Your task to perform on an android device: Search for the new Nike Air Max 270 on Nike.com Image 0: 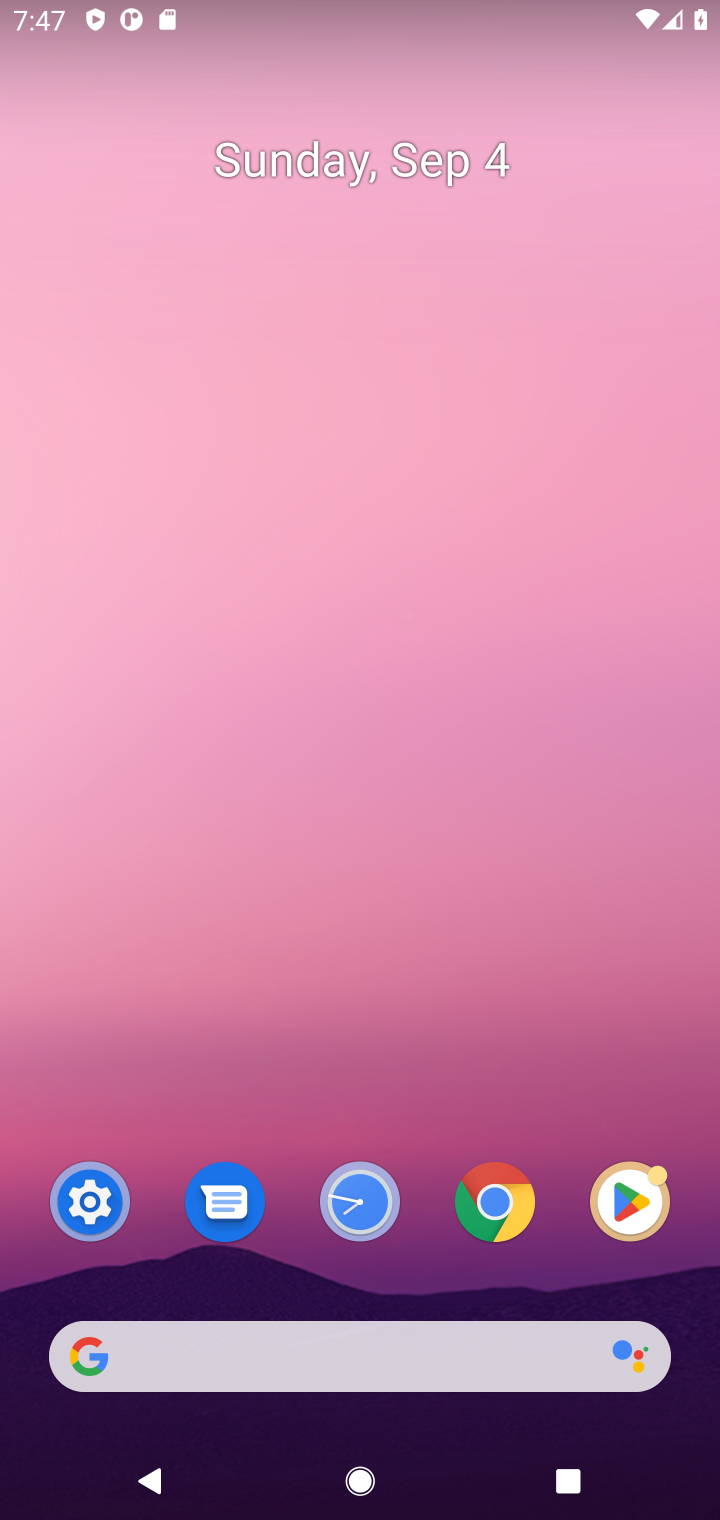
Step 0: click (494, 1218)
Your task to perform on an android device: Search for the new Nike Air Max 270 on Nike.com Image 1: 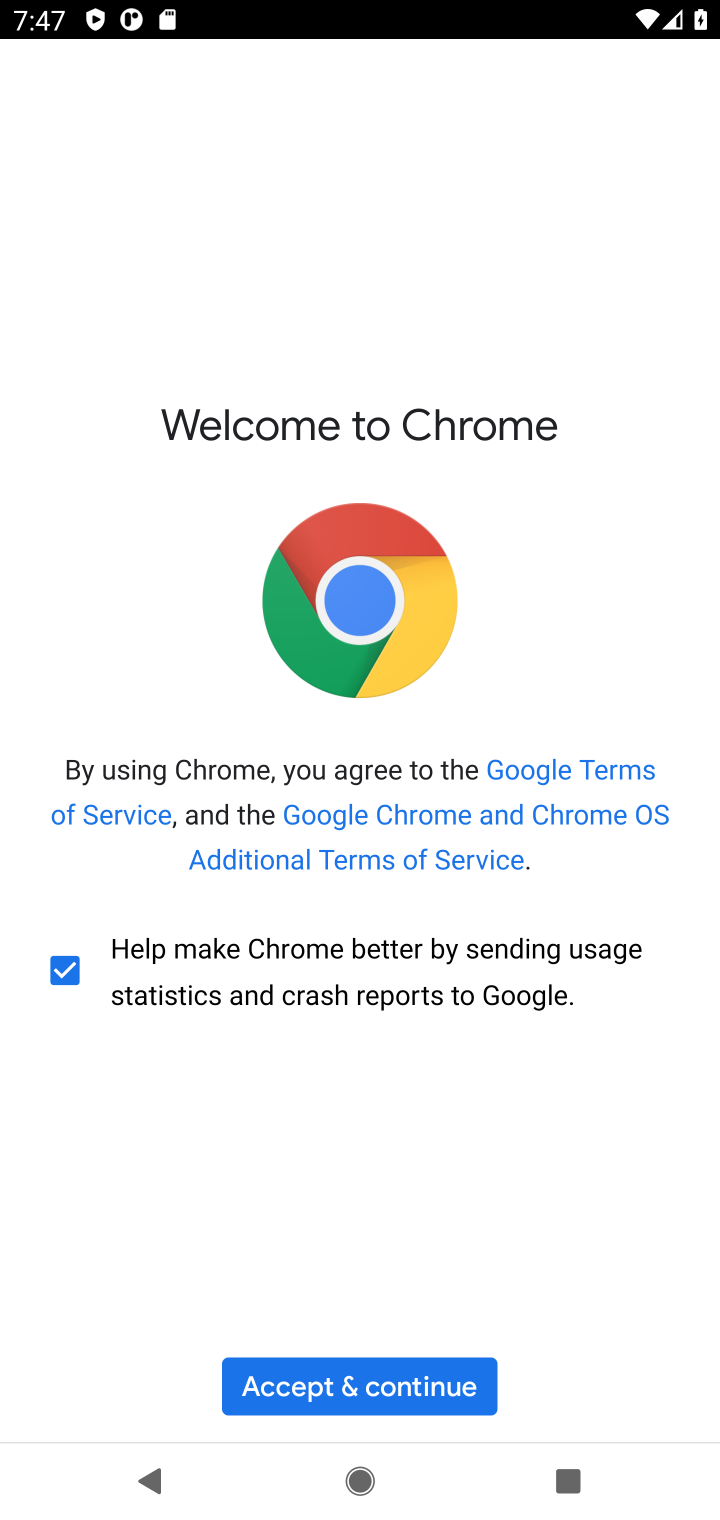
Step 1: click (373, 1400)
Your task to perform on an android device: Search for the new Nike Air Max 270 on Nike.com Image 2: 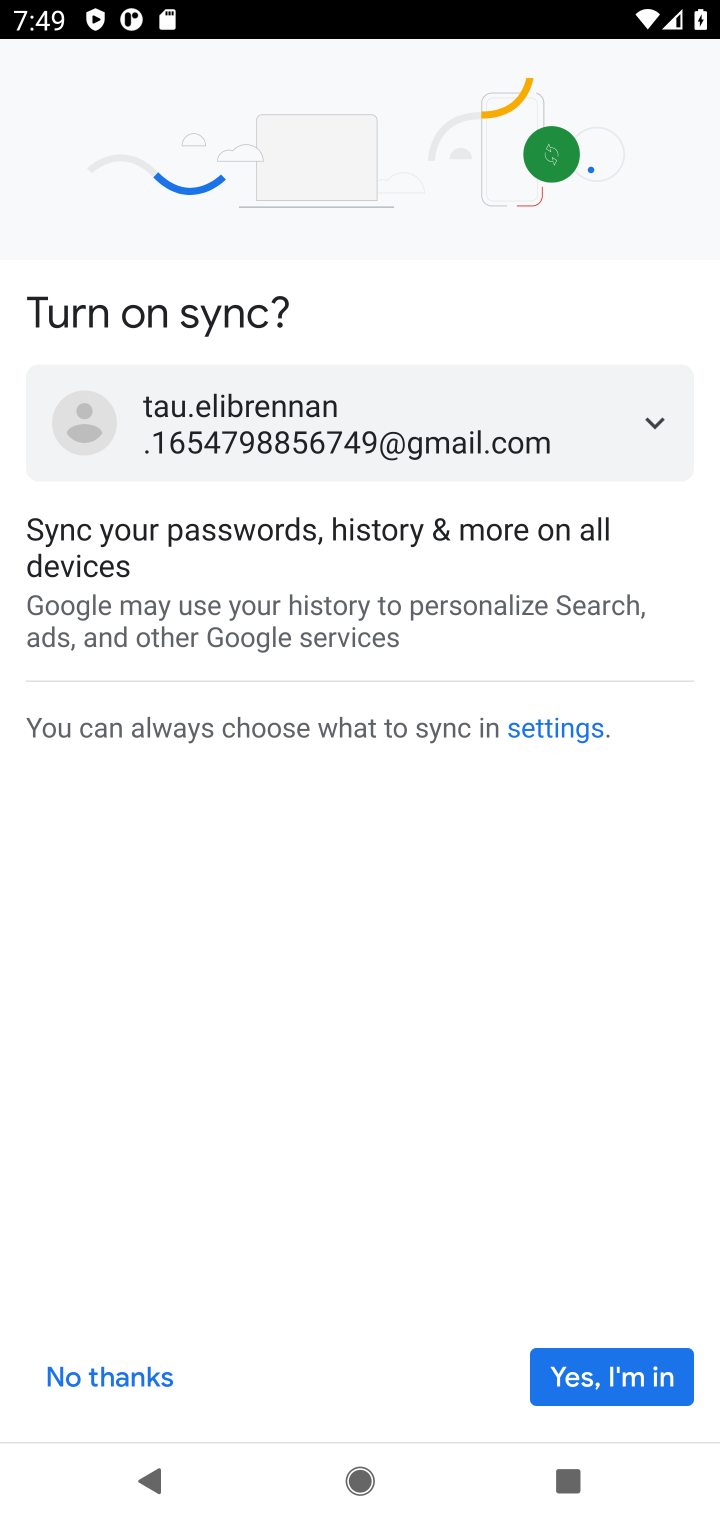
Step 2: click (583, 1386)
Your task to perform on an android device: Search for the new Nike Air Max 270 on Nike.com Image 3: 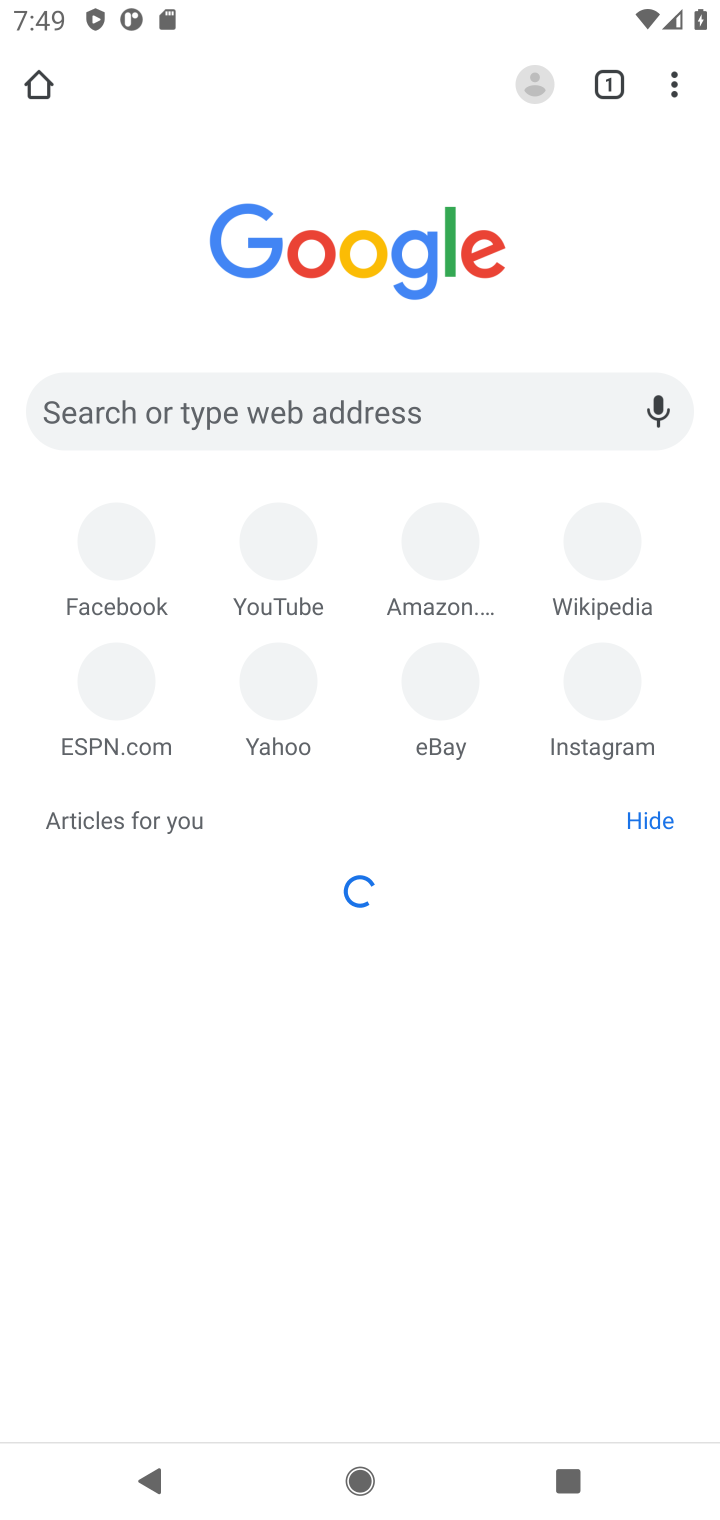
Step 3: type "google.com"
Your task to perform on an android device: Search for the new Nike Air Max 270 on Nike.com Image 4: 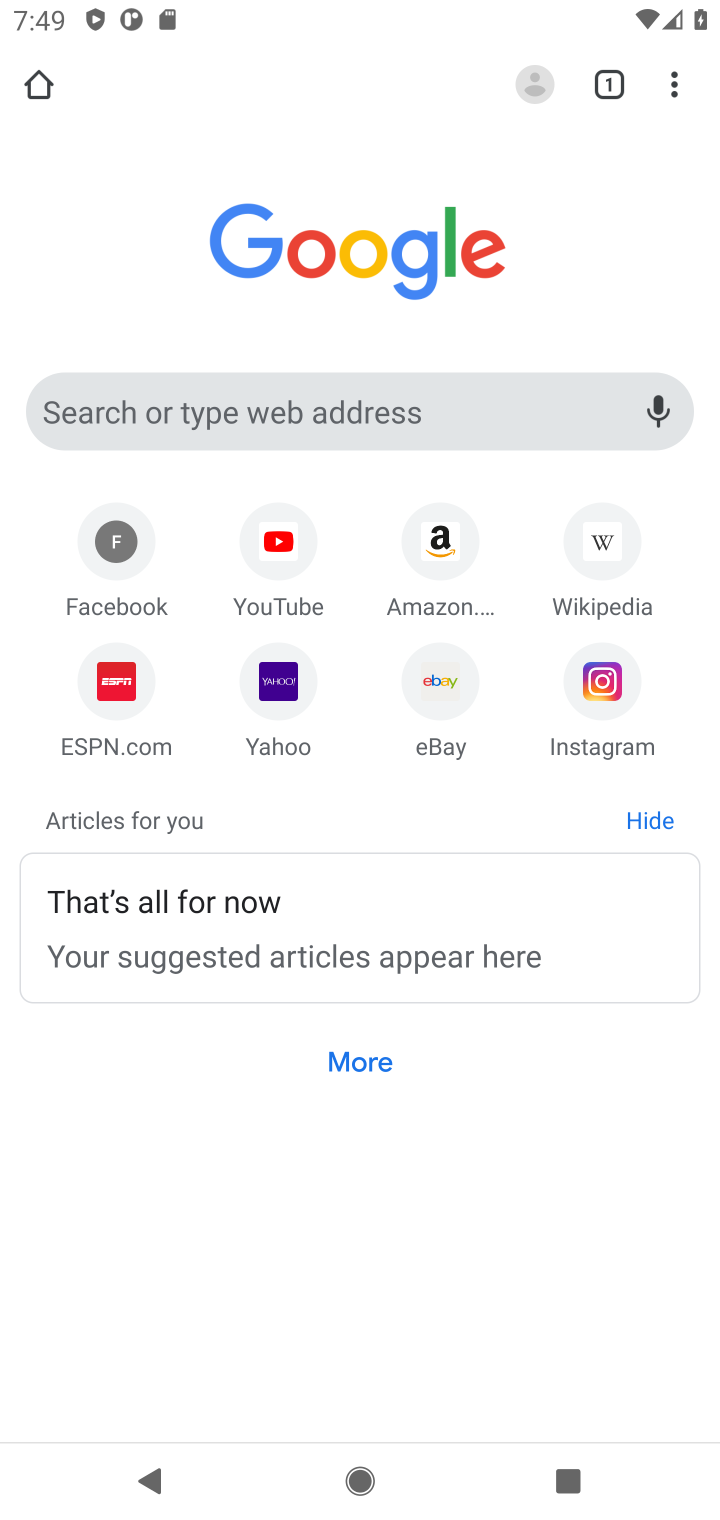
Step 4: click (312, 394)
Your task to perform on an android device: Search for the new Nike Air Max 270 on Nike.com Image 5: 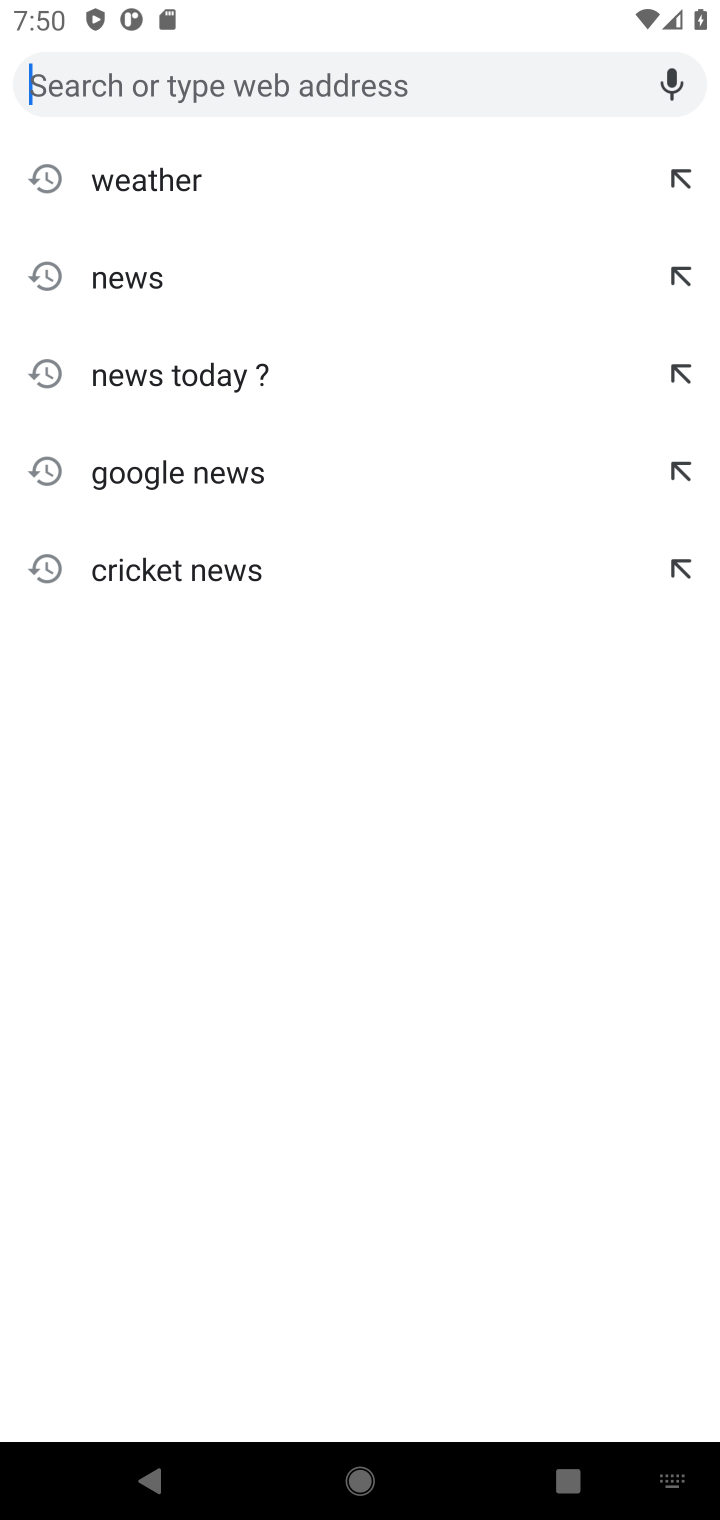
Step 5: type "nike.com"
Your task to perform on an android device: Search for the new Nike Air Max 270 on Nike.com Image 6: 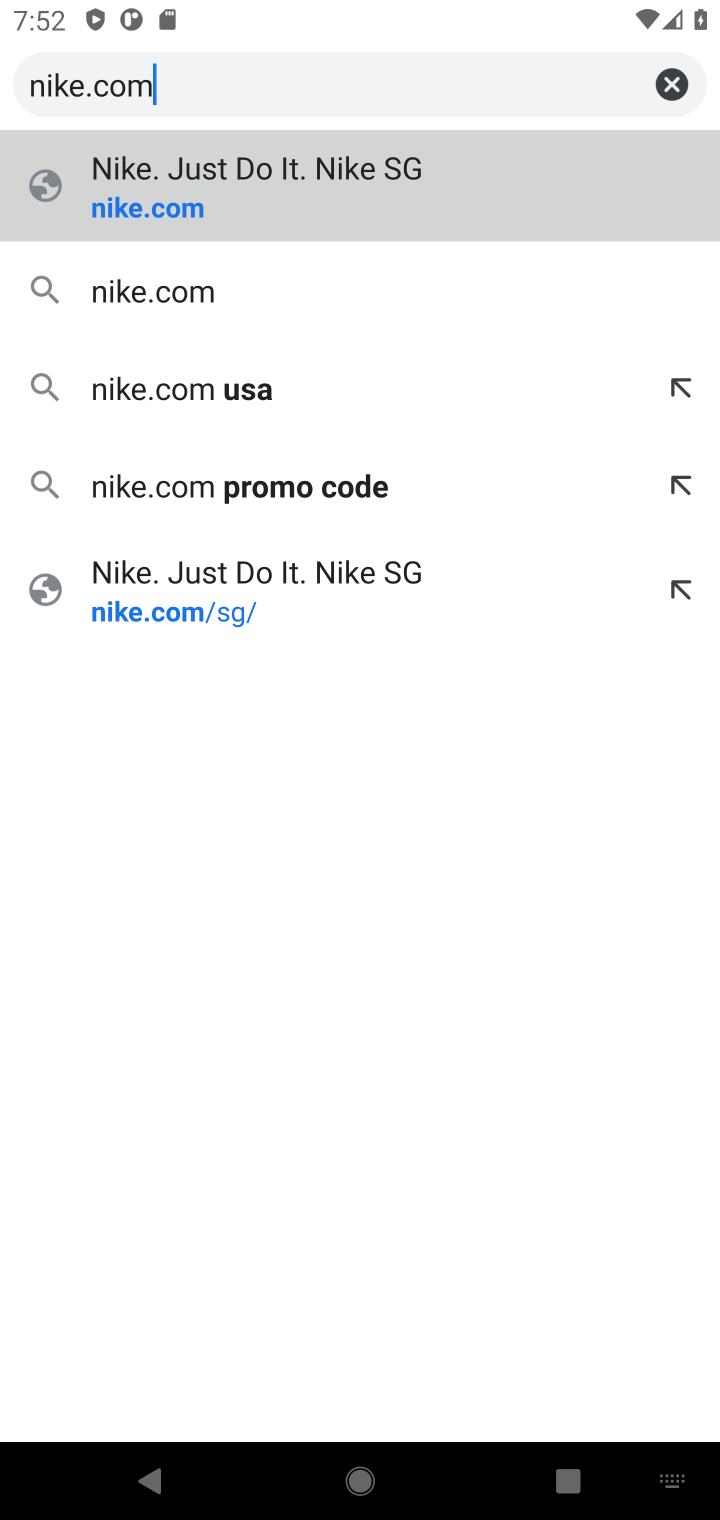
Step 6: click (488, 218)
Your task to perform on an android device: Search for the new Nike Air Max 270 on Nike.com Image 7: 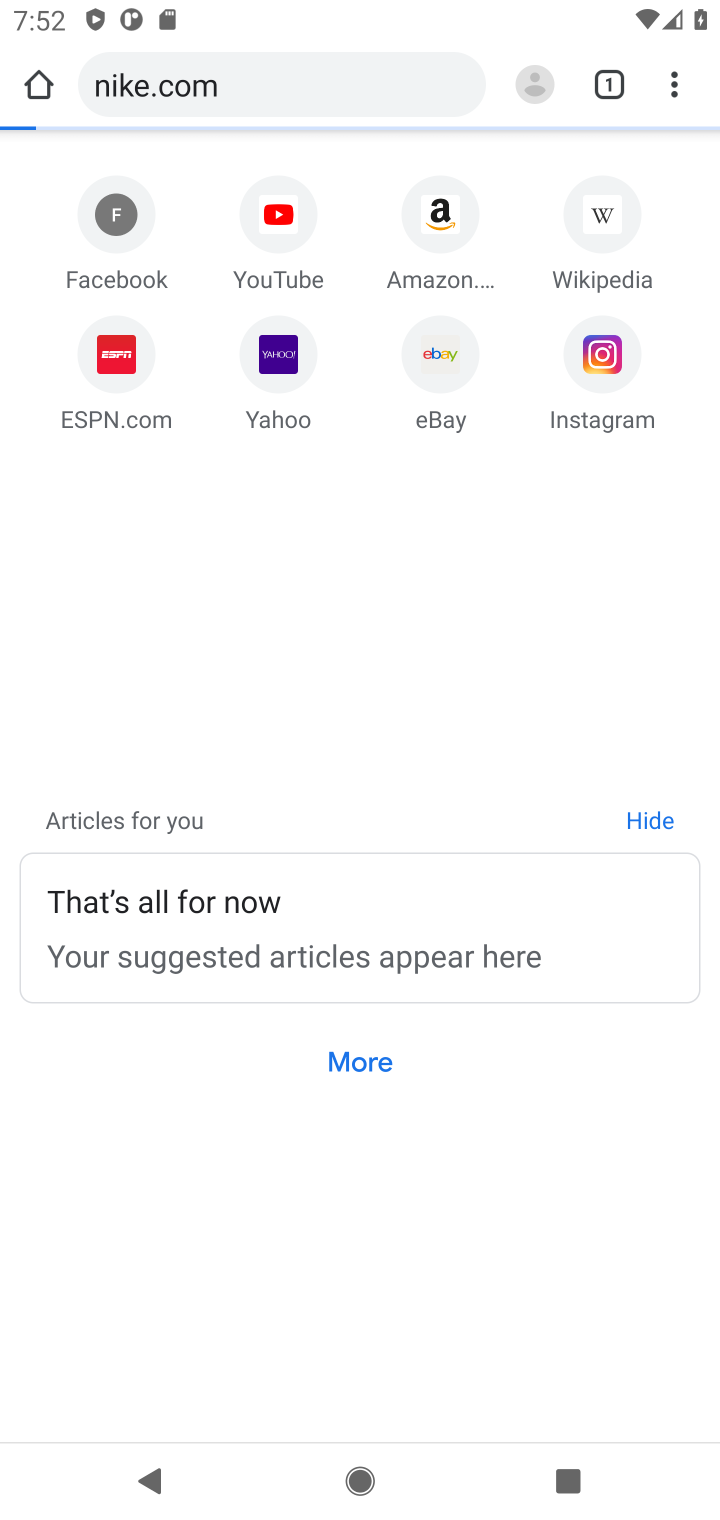
Step 7: task complete